Your task to perform on an android device: Open Google Chrome Image 0: 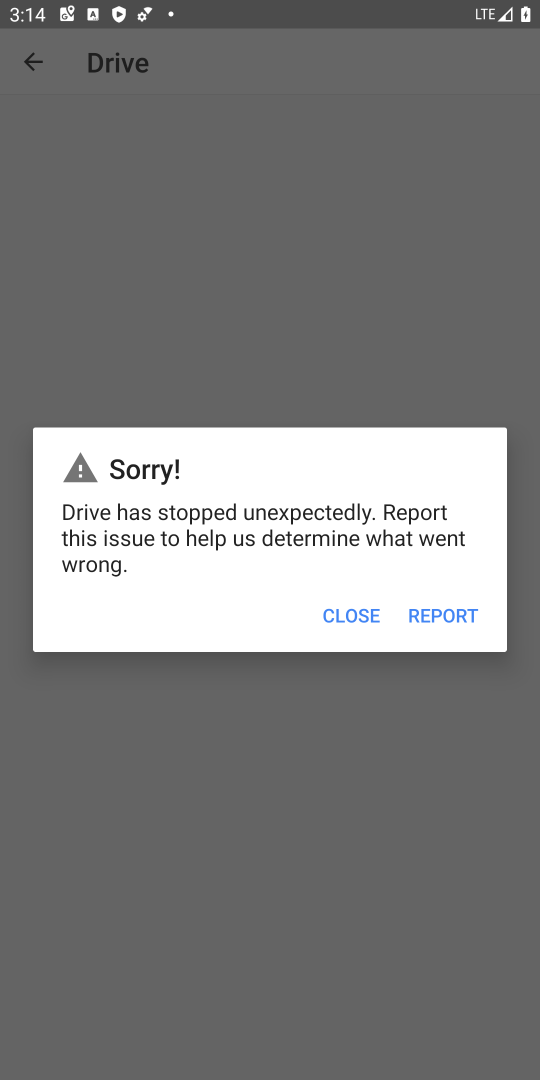
Step 0: press home button
Your task to perform on an android device: Open Google Chrome Image 1: 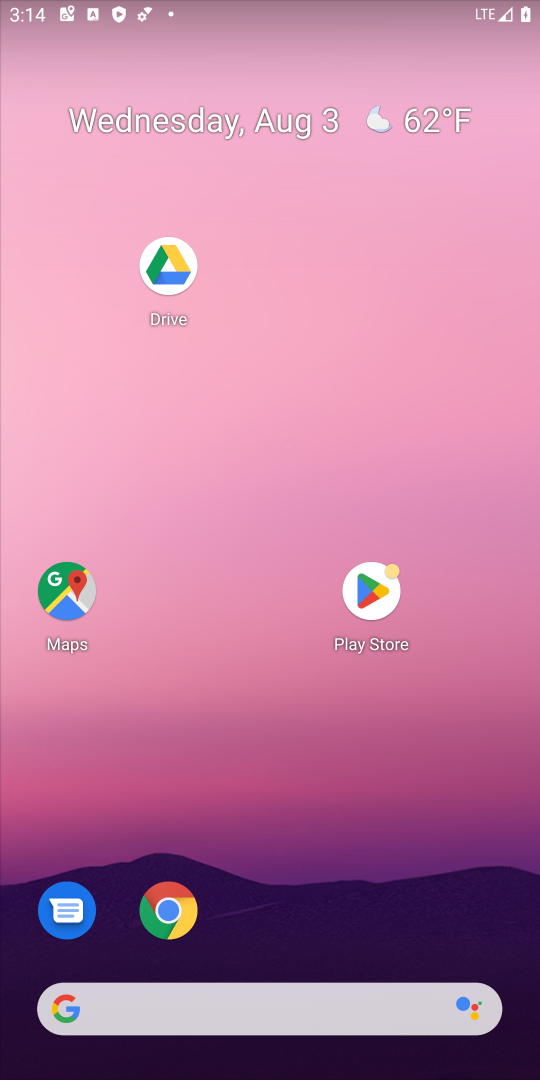
Step 1: drag from (352, 996) to (442, 8)
Your task to perform on an android device: Open Google Chrome Image 2: 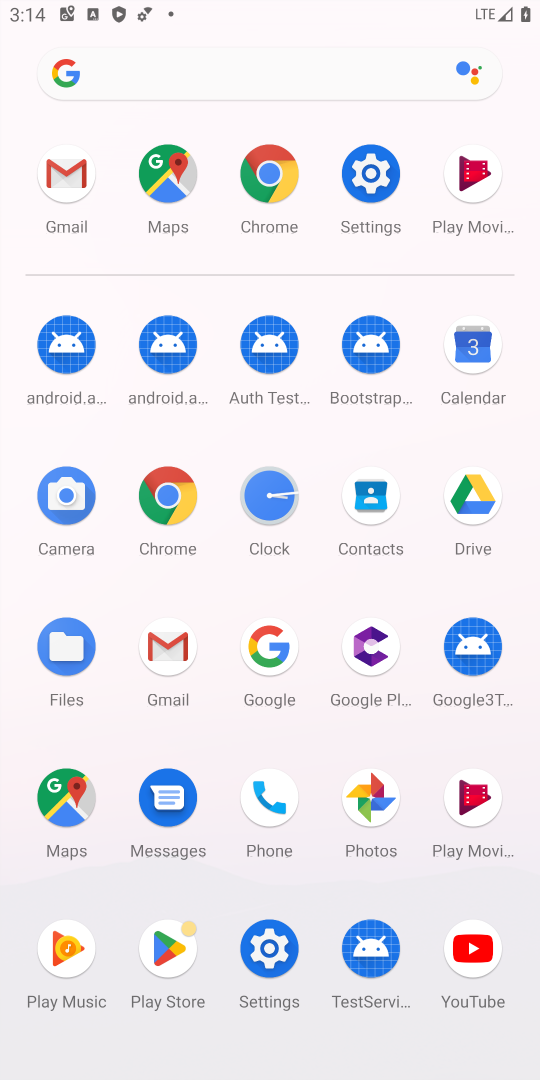
Step 2: click (171, 492)
Your task to perform on an android device: Open Google Chrome Image 3: 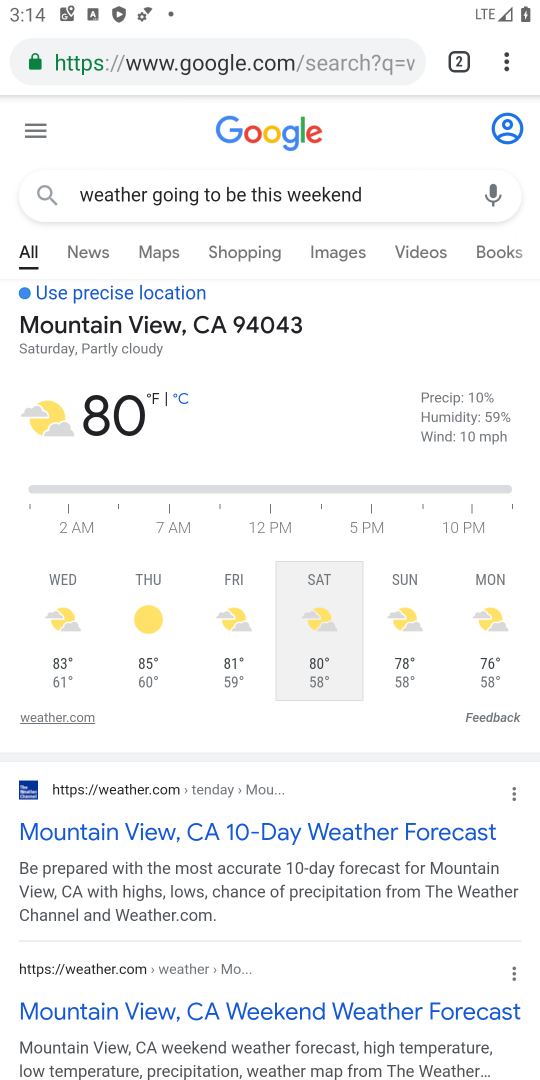
Step 3: task complete